Your task to perform on an android device: turn on translation in the chrome app Image 0: 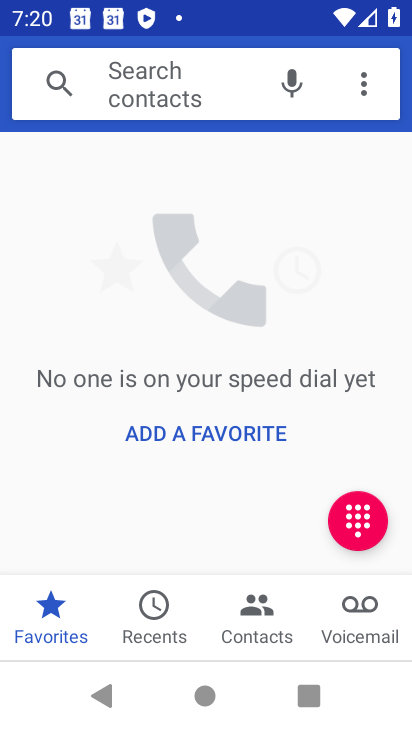
Step 0: press home button
Your task to perform on an android device: turn on translation in the chrome app Image 1: 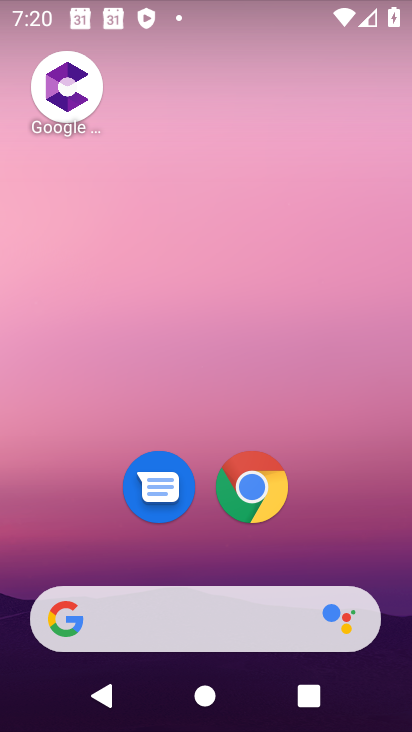
Step 1: click (245, 514)
Your task to perform on an android device: turn on translation in the chrome app Image 2: 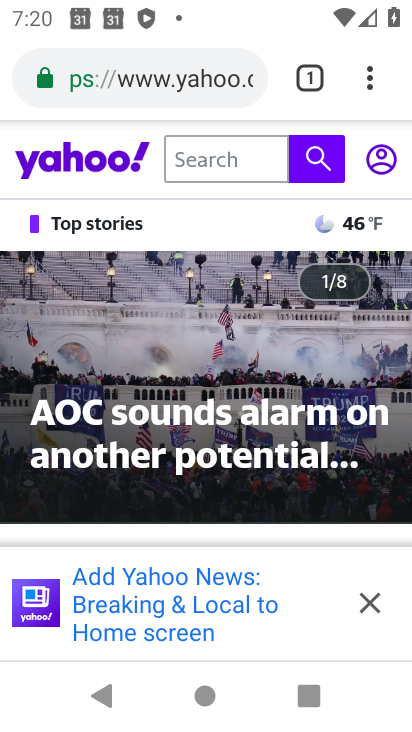
Step 2: press back button
Your task to perform on an android device: turn on translation in the chrome app Image 3: 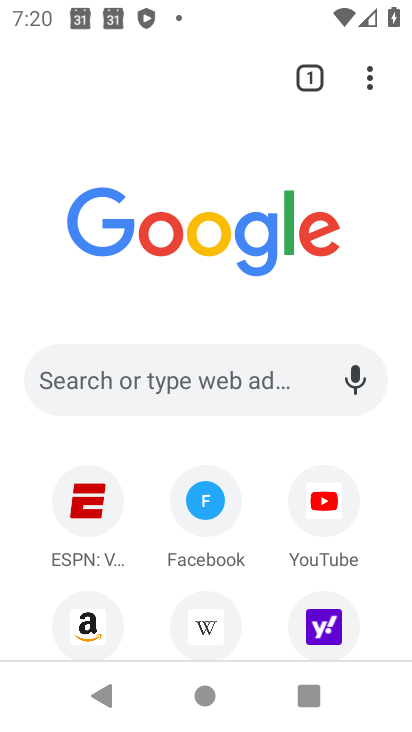
Step 3: click (362, 69)
Your task to perform on an android device: turn on translation in the chrome app Image 4: 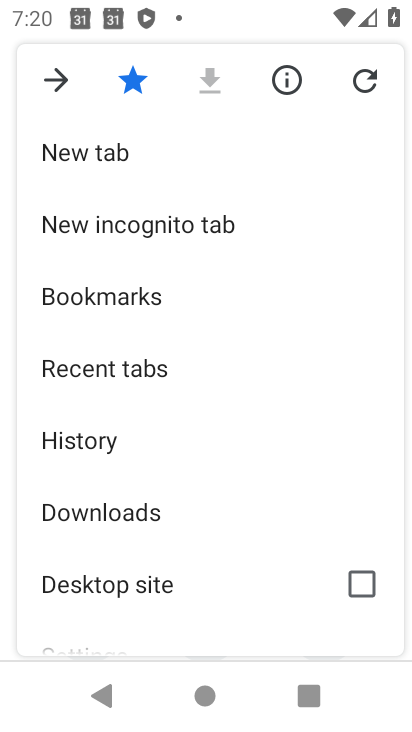
Step 4: drag from (217, 521) to (201, 298)
Your task to perform on an android device: turn on translation in the chrome app Image 5: 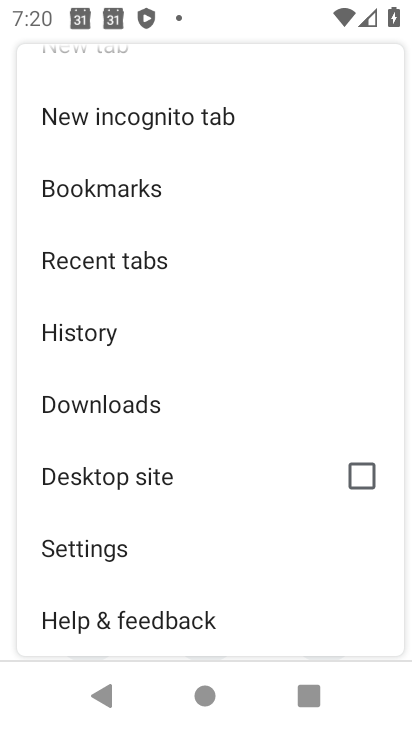
Step 5: click (167, 551)
Your task to perform on an android device: turn on translation in the chrome app Image 6: 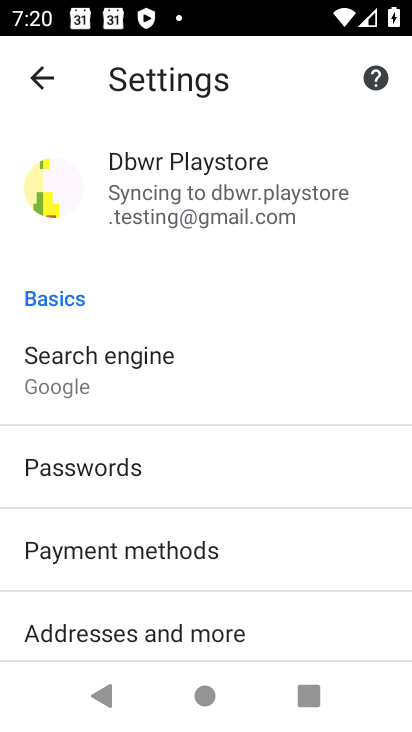
Step 6: drag from (169, 572) to (162, 358)
Your task to perform on an android device: turn on translation in the chrome app Image 7: 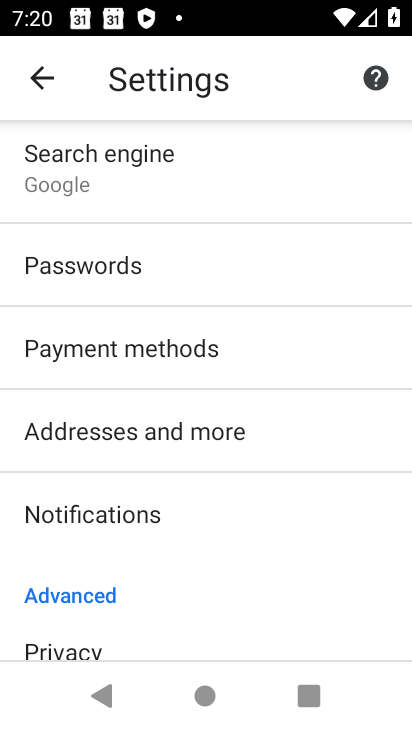
Step 7: drag from (151, 547) to (184, 169)
Your task to perform on an android device: turn on translation in the chrome app Image 8: 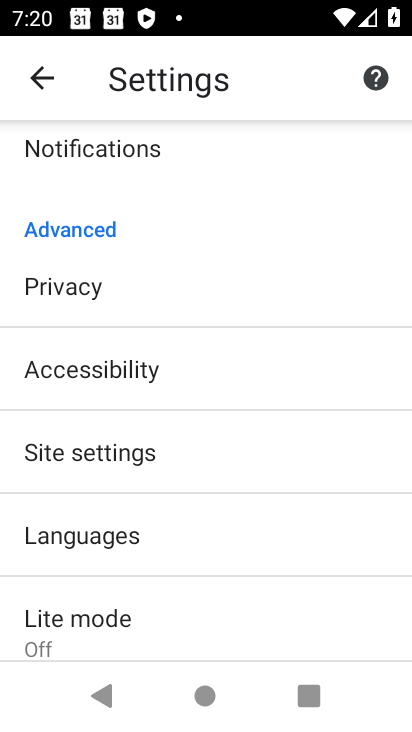
Step 8: click (166, 533)
Your task to perform on an android device: turn on translation in the chrome app Image 9: 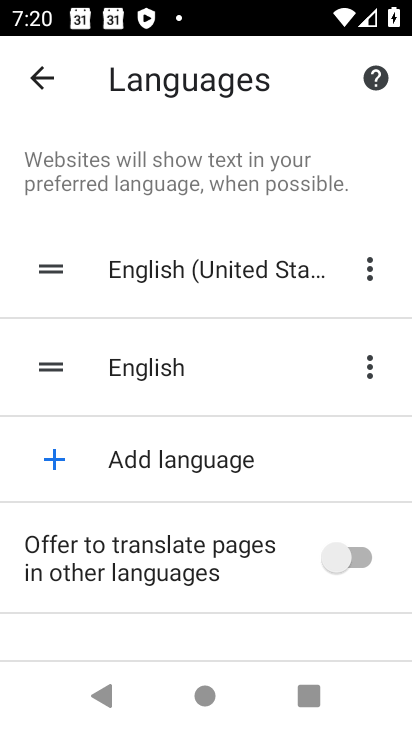
Step 9: click (274, 571)
Your task to perform on an android device: turn on translation in the chrome app Image 10: 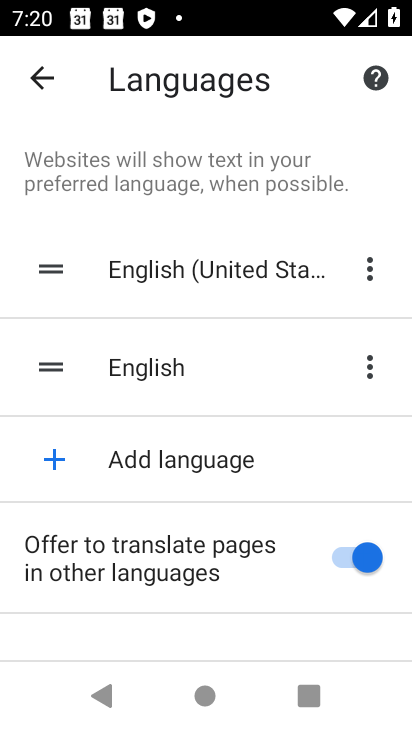
Step 10: task complete